Your task to perform on an android device: find snoozed emails in the gmail app Image 0: 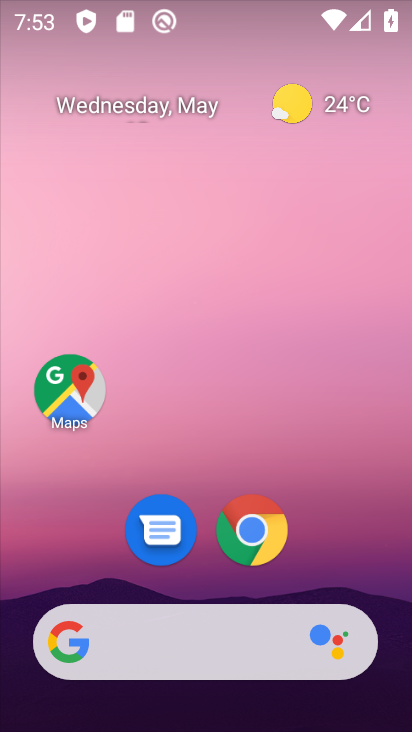
Step 0: drag from (343, 534) to (356, 231)
Your task to perform on an android device: find snoozed emails in the gmail app Image 1: 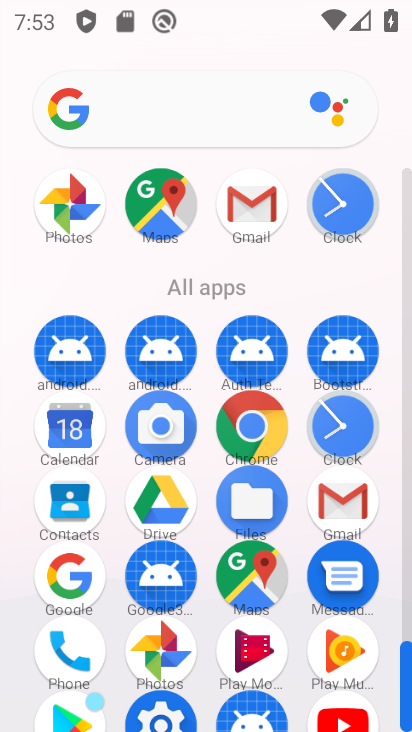
Step 1: click (329, 492)
Your task to perform on an android device: find snoozed emails in the gmail app Image 2: 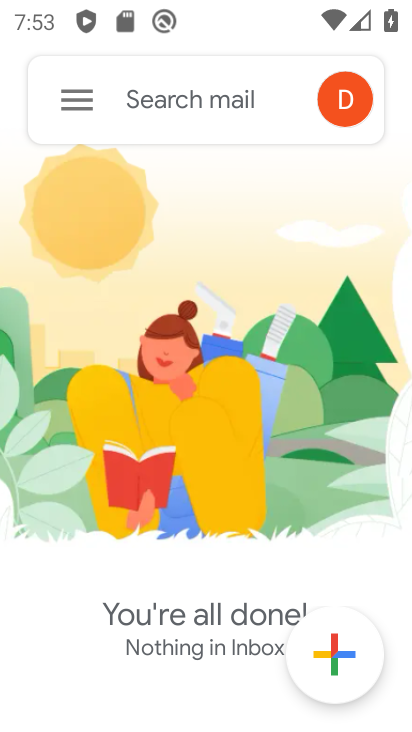
Step 2: click (68, 107)
Your task to perform on an android device: find snoozed emails in the gmail app Image 3: 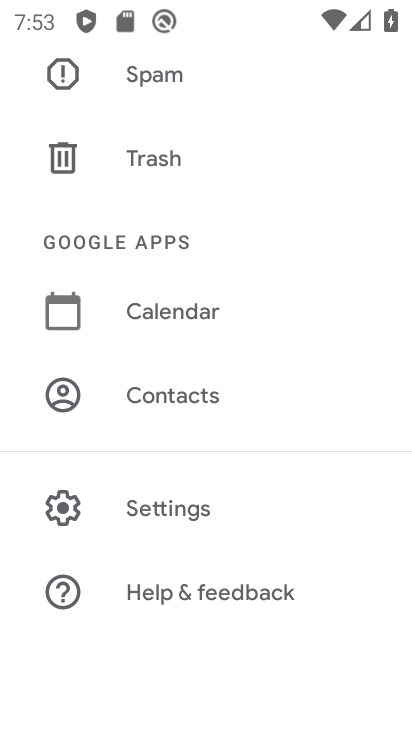
Step 3: drag from (160, 125) to (245, 544)
Your task to perform on an android device: find snoozed emails in the gmail app Image 4: 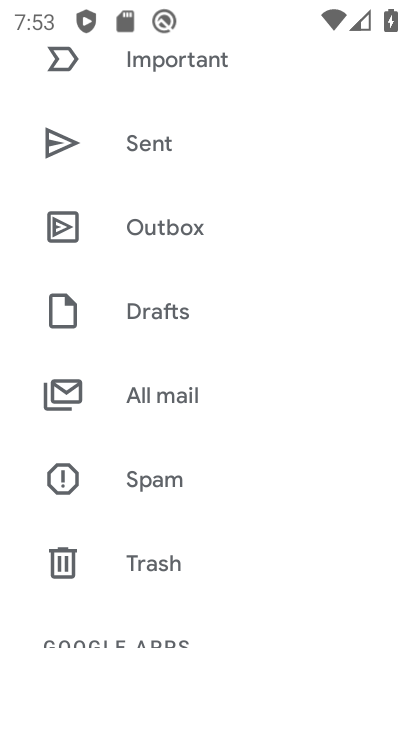
Step 4: drag from (182, 217) to (267, 558)
Your task to perform on an android device: find snoozed emails in the gmail app Image 5: 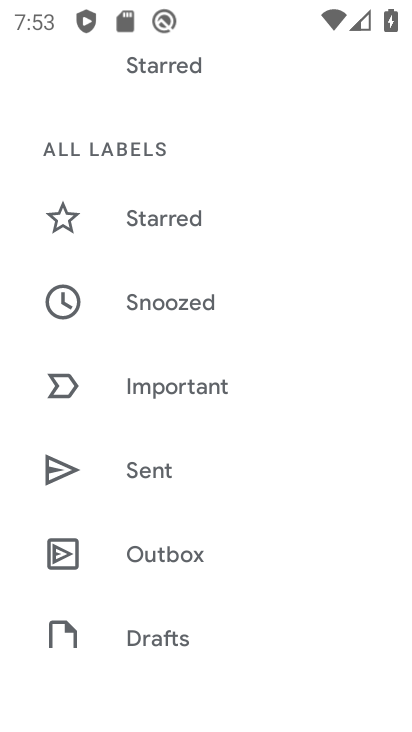
Step 5: click (210, 304)
Your task to perform on an android device: find snoozed emails in the gmail app Image 6: 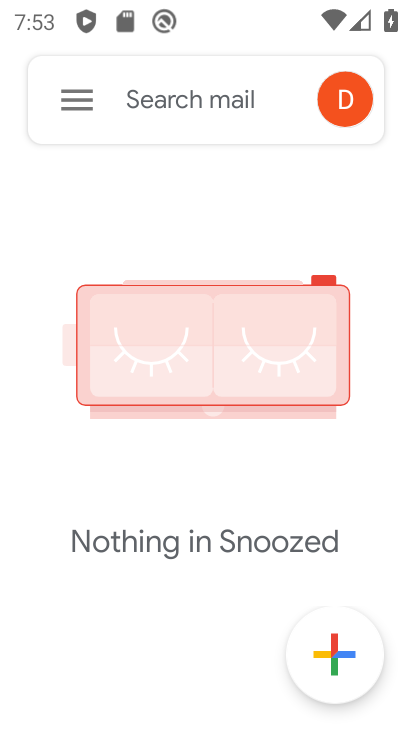
Step 6: task complete